Your task to perform on an android device: toggle priority inbox in the gmail app Image 0: 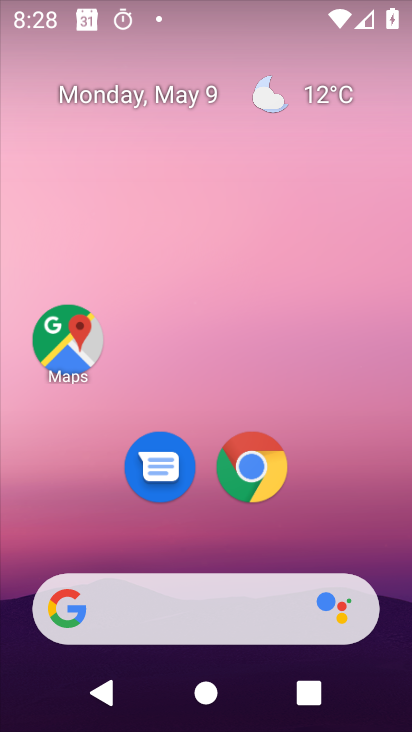
Step 0: drag from (370, 563) to (216, 13)
Your task to perform on an android device: toggle priority inbox in the gmail app Image 1: 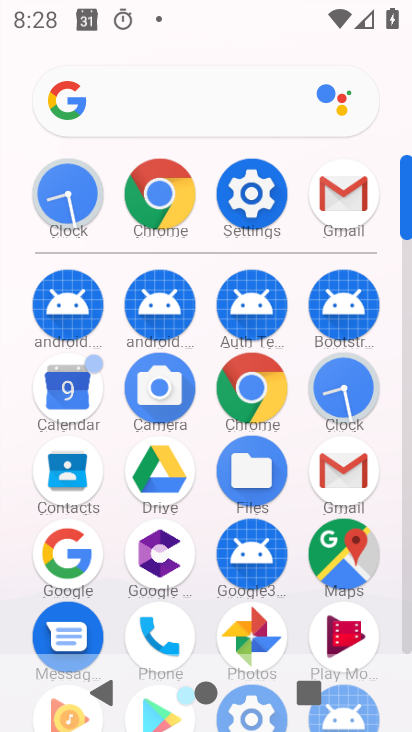
Step 1: click (348, 207)
Your task to perform on an android device: toggle priority inbox in the gmail app Image 2: 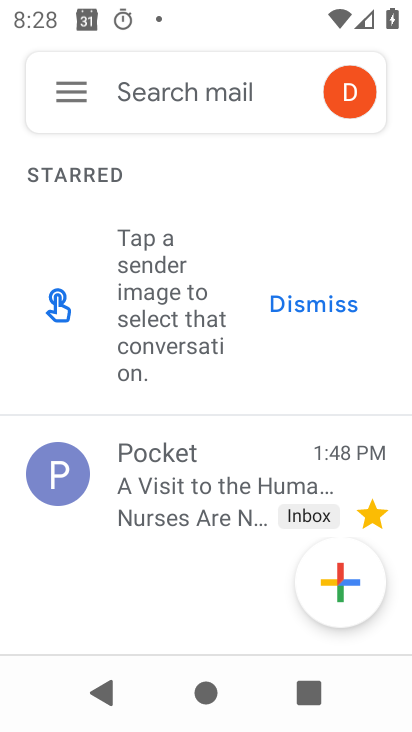
Step 2: click (70, 96)
Your task to perform on an android device: toggle priority inbox in the gmail app Image 3: 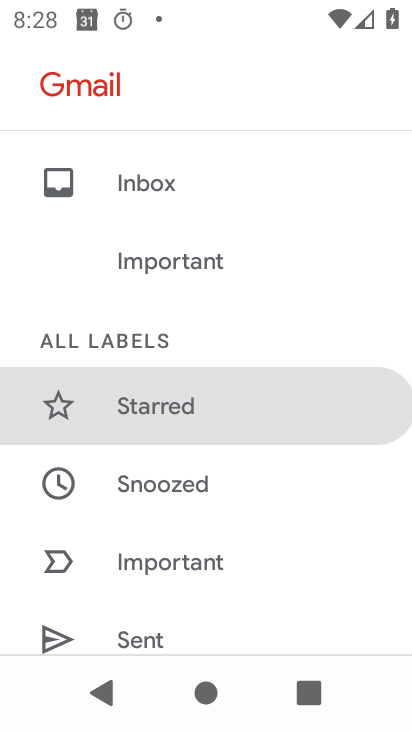
Step 3: drag from (246, 521) to (240, 204)
Your task to perform on an android device: toggle priority inbox in the gmail app Image 4: 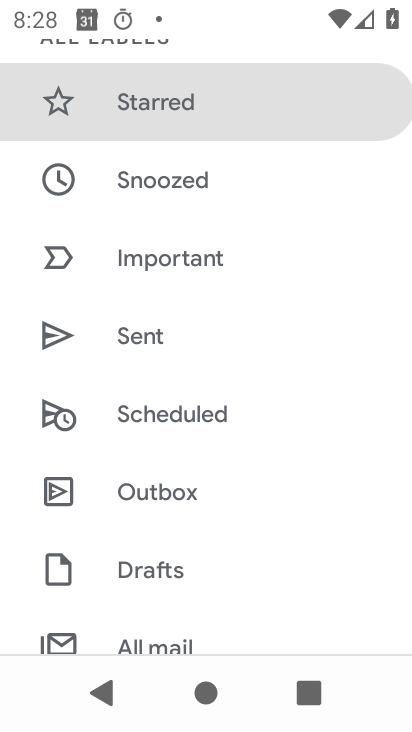
Step 4: drag from (293, 533) to (237, 197)
Your task to perform on an android device: toggle priority inbox in the gmail app Image 5: 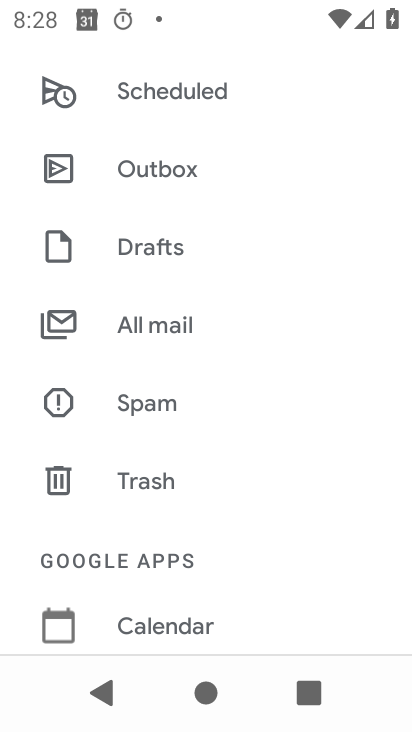
Step 5: drag from (226, 512) to (179, 153)
Your task to perform on an android device: toggle priority inbox in the gmail app Image 6: 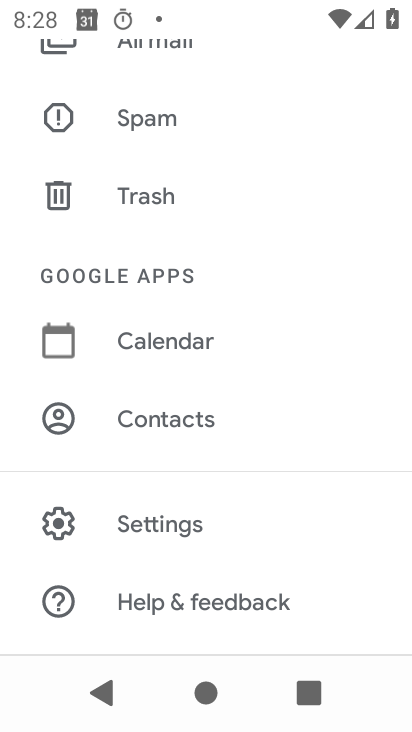
Step 6: click (184, 531)
Your task to perform on an android device: toggle priority inbox in the gmail app Image 7: 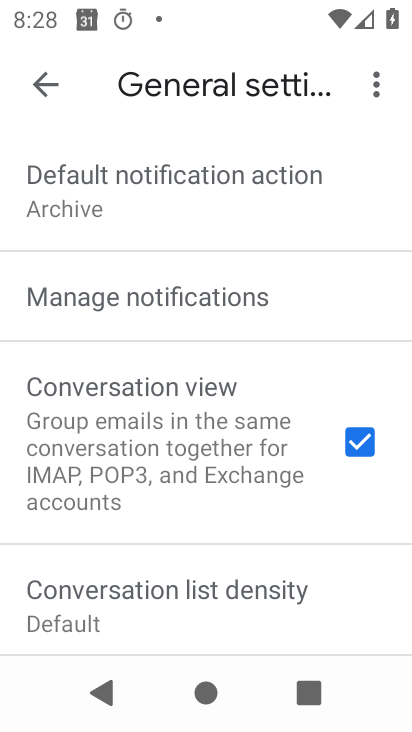
Step 7: click (40, 94)
Your task to perform on an android device: toggle priority inbox in the gmail app Image 8: 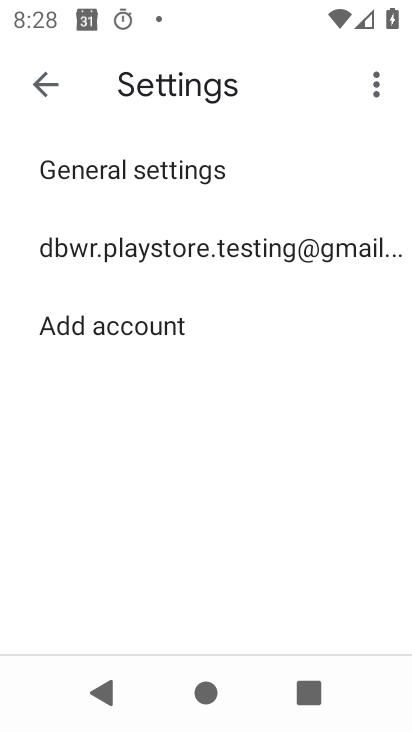
Step 8: click (79, 252)
Your task to perform on an android device: toggle priority inbox in the gmail app Image 9: 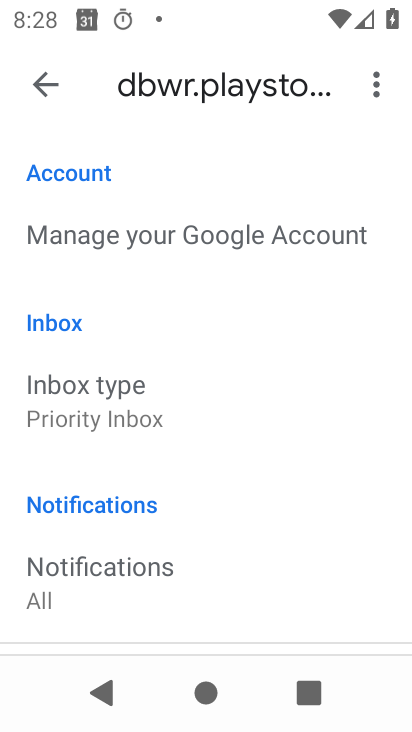
Step 9: click (115, 414)
Your task to perform on an android device: toggle priority inbox in the gmail app Image 10: 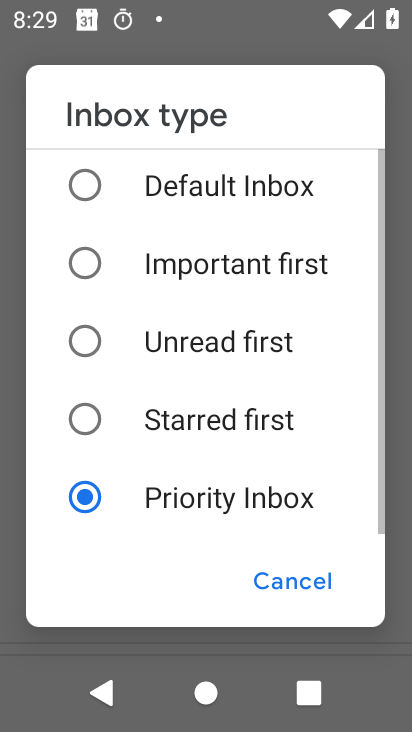
Step 10: click (77, 183)
Your task to perform on an android device: toggle priority inbox in the gmail app Image 11: 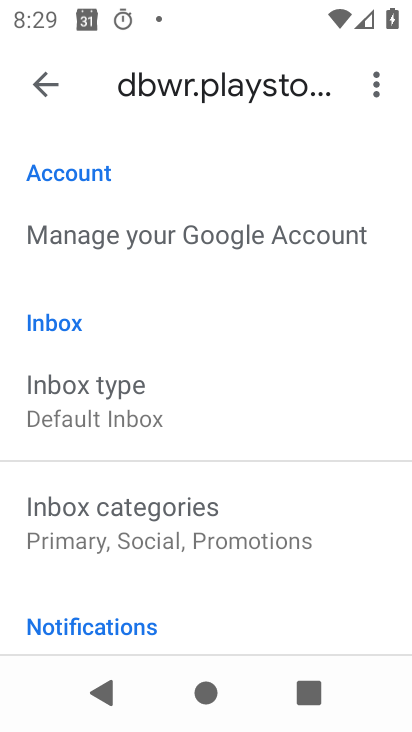
Step 11: task complete